Your task to perform on an android device: visit the assistant section in the google photos Image 0: 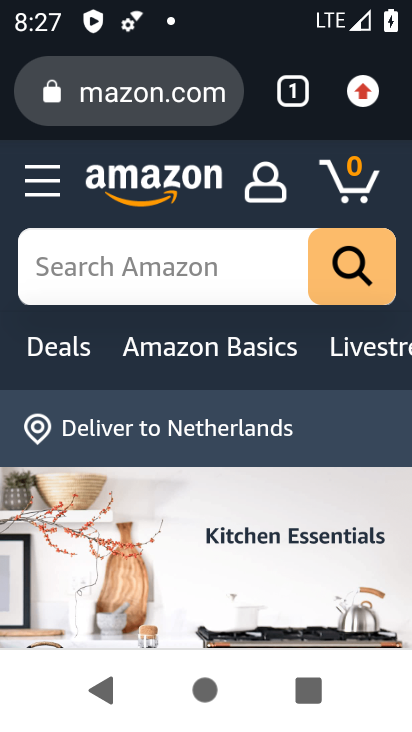
Step 0: press home button
Your task to perform on an android device: visit the assistant section in the google photos Image 1: 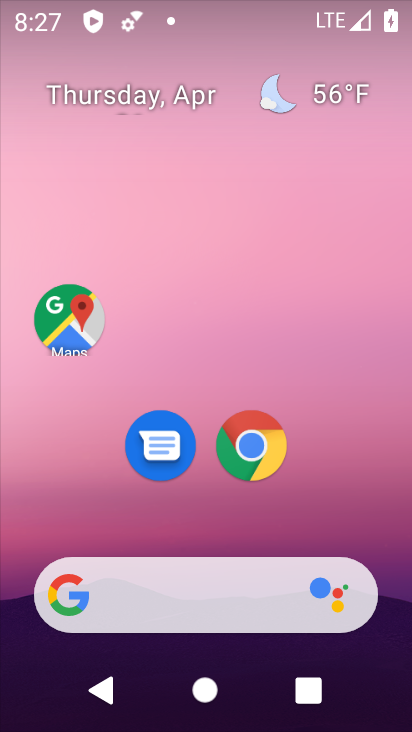
Step 1: drag from (384, 524) to (379, 5)
Your task to perform on an android device: visit the assistant section in the google photos Image 2: 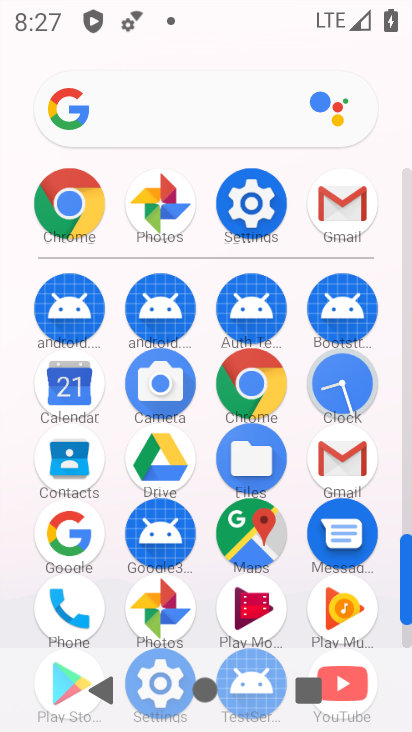
Step 2: click (153, 214)
Your task to perform on an android device: visit the assistant section in the google photos Image 3: 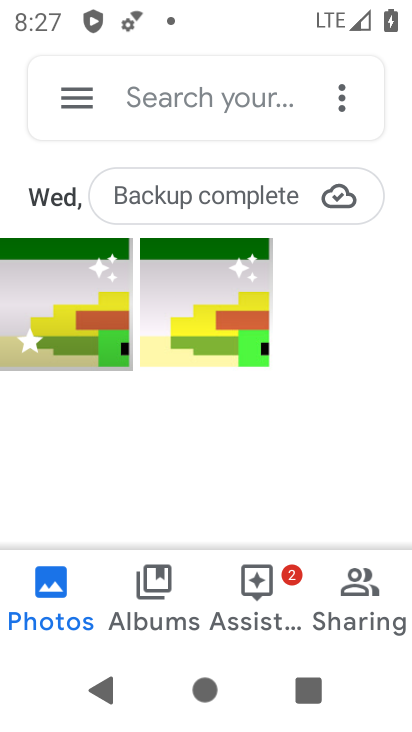
Step 3: click (276, 596)
Your task to perform on an android device: visit the assistant section in the google photos Image 4: 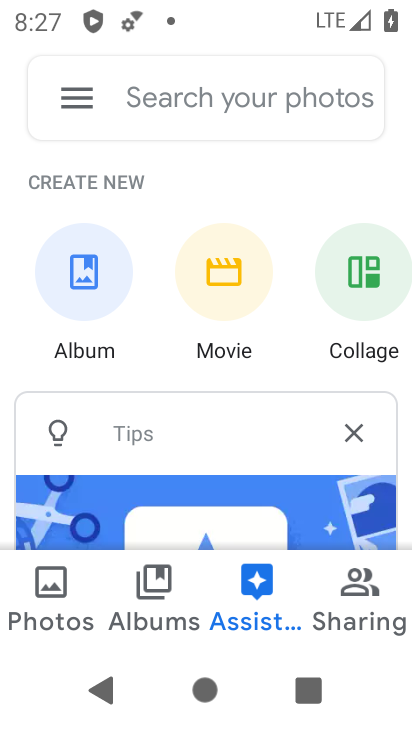
Step 4: task complete